Your task to perform on an android device: Show me the alarms in the clock app Image 0: 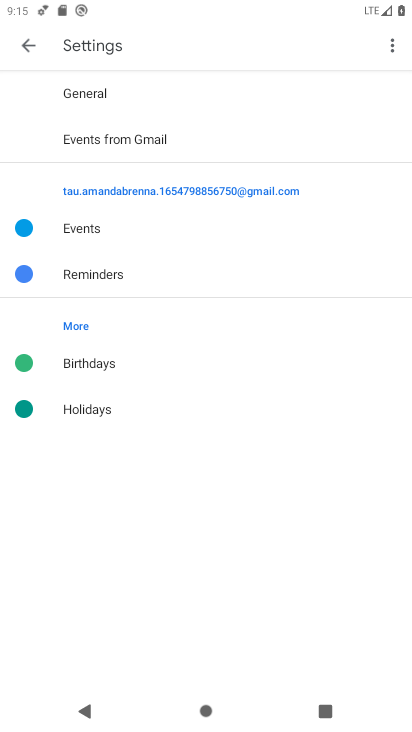
Step 0: press home button
Your task to perform on an android device: Show me the alarms in the clock app Image 1: 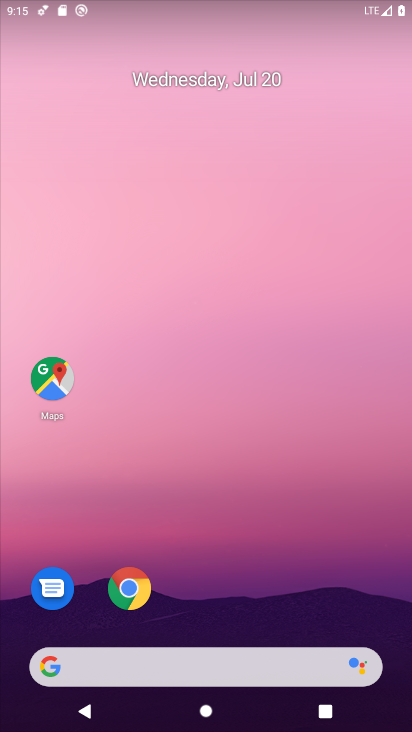
Step 1: drag from (228, 621) to (252, 72)
Your task to perform on an android device: Show me the alarms in the clock app Image 2: 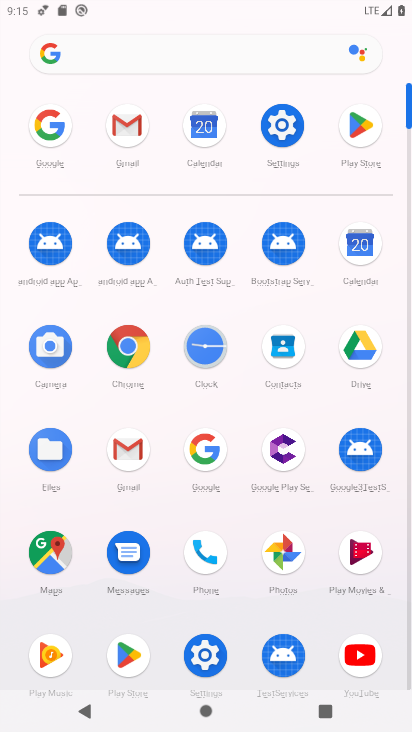
Step 2: click (201, 340)
Your task to perform on an android device: Show me the alarms in the clock app Image 3: 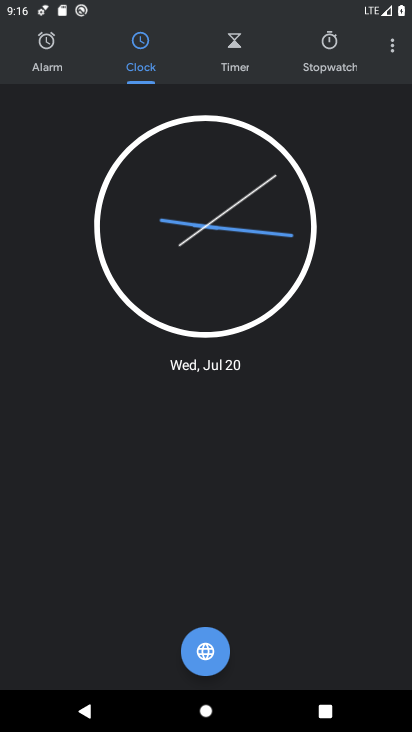
Step 3: click (46, 43)
Your task to perform on an android device: Show me the alarms in the clock app Image 4: 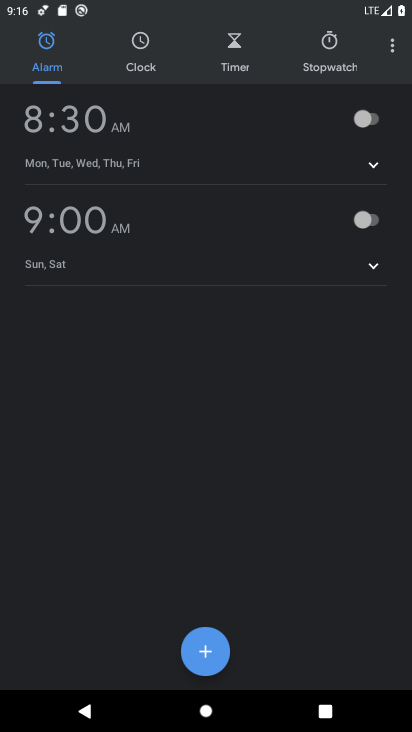
Step 4: click (369, 121)
Your task to perform on an android device: Show me the alarms in the clock app Image 5: 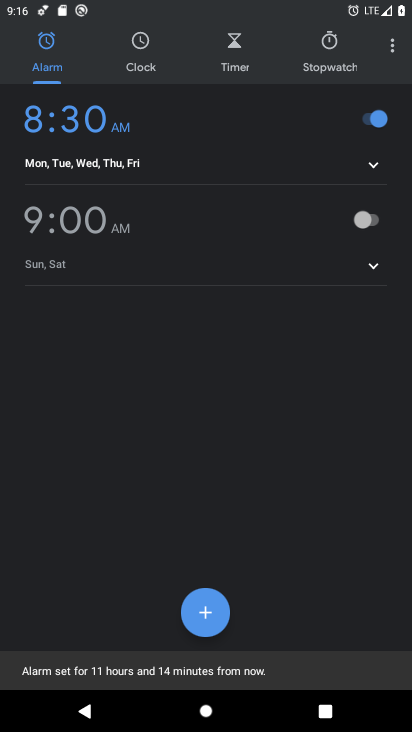
Step 5: task complete